Your task to perform on an android device: find which apps use the phone's location Image 0: 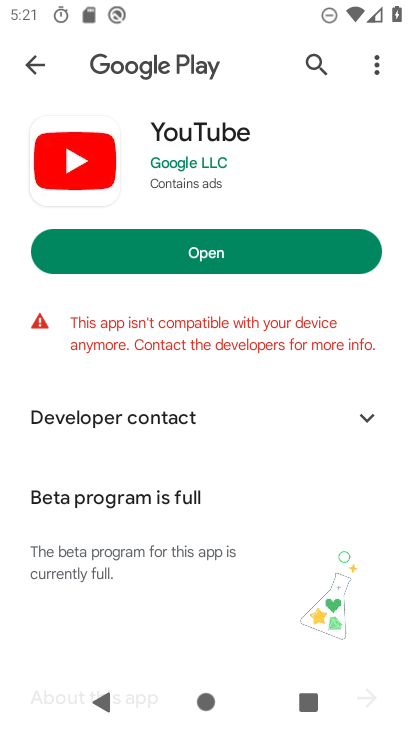
Step 0: press home button
Your task to perform on an android device: find which apps use the phone's location Image 1: 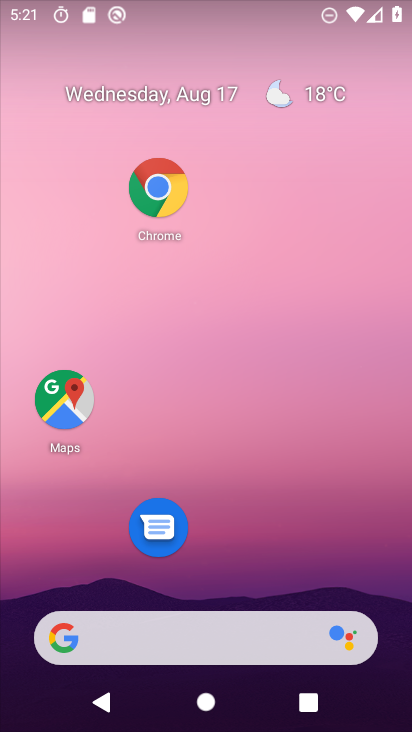
Step 1: drag from (223, 576) to (279, 55)
Your task to perform on an android device: find which apps use the phone's location Image 2: 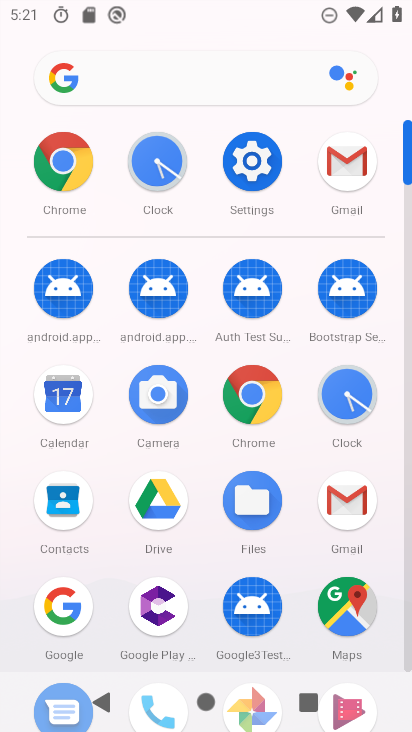
Step 2: click (254, 172)
Your task to perform on an android device: find which apps use the phone's location Image 3: 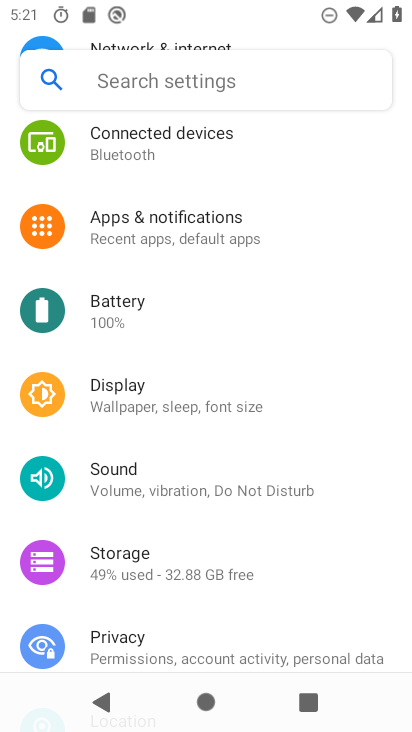
Step 3: drag from (116, 599) to (203, 150)
Your task to perform on an android device: find which apps use the phone's location Image 4: 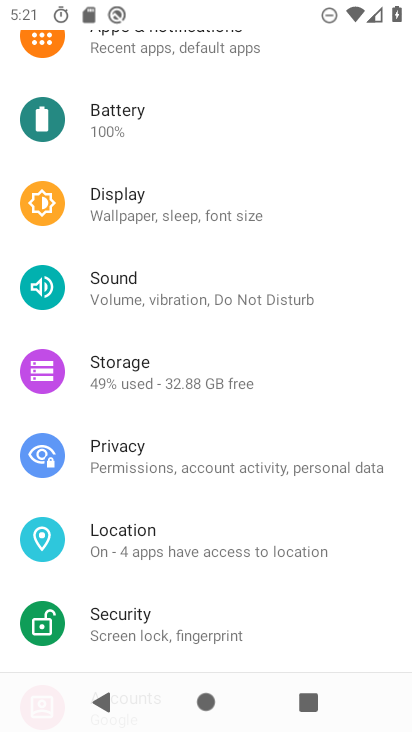
Step 4: click (152, 552)
Your task to perform on an android device: find which apps use the phone's location Image 5: 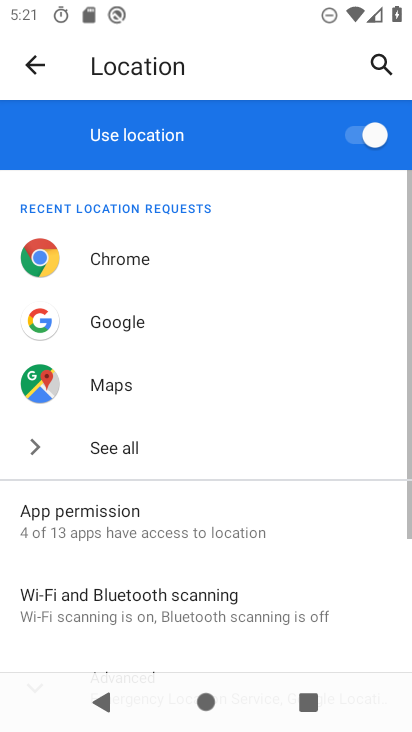
Step 5: click (146, 446)
Your task to perform on an android device: find which apps use the phone's location Image 6: 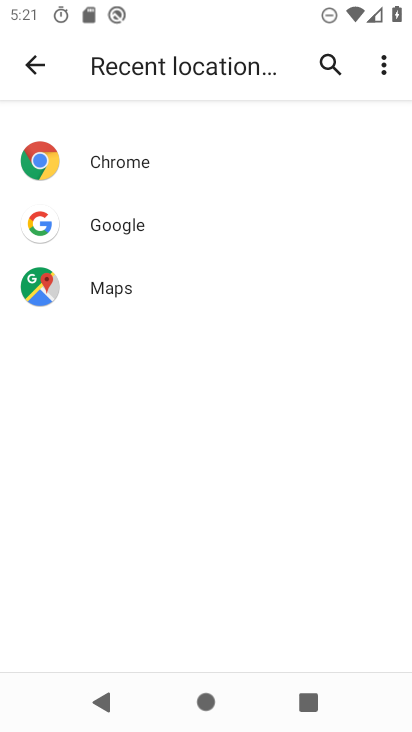
Step 6: task complete